Your task to perform on an android device: open app "Clock" Image 0: 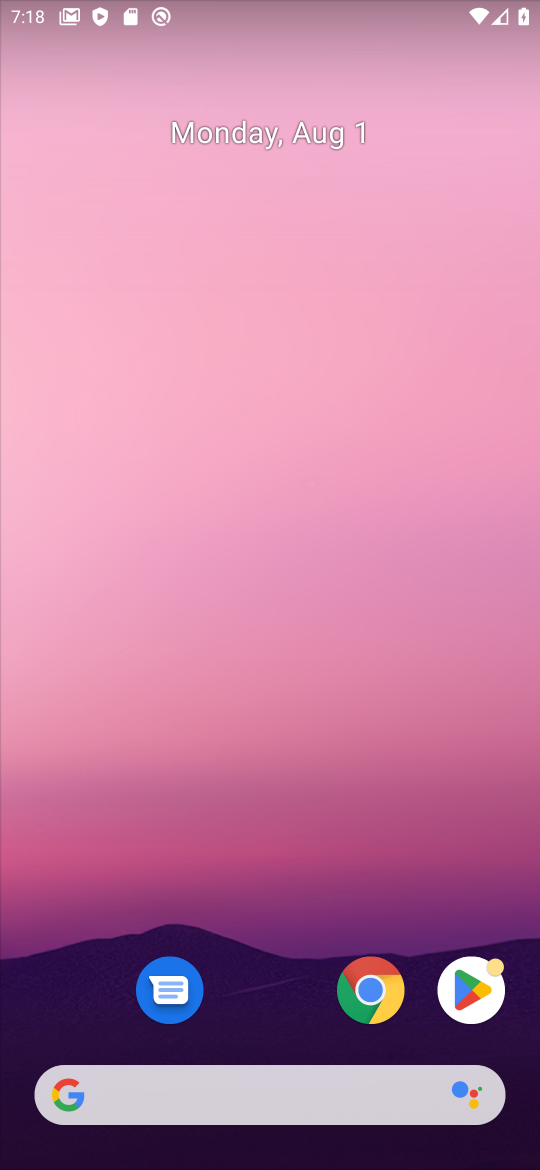
Step 0: press home button
Your task to perform on an android device: open app "Clock" Image 1: 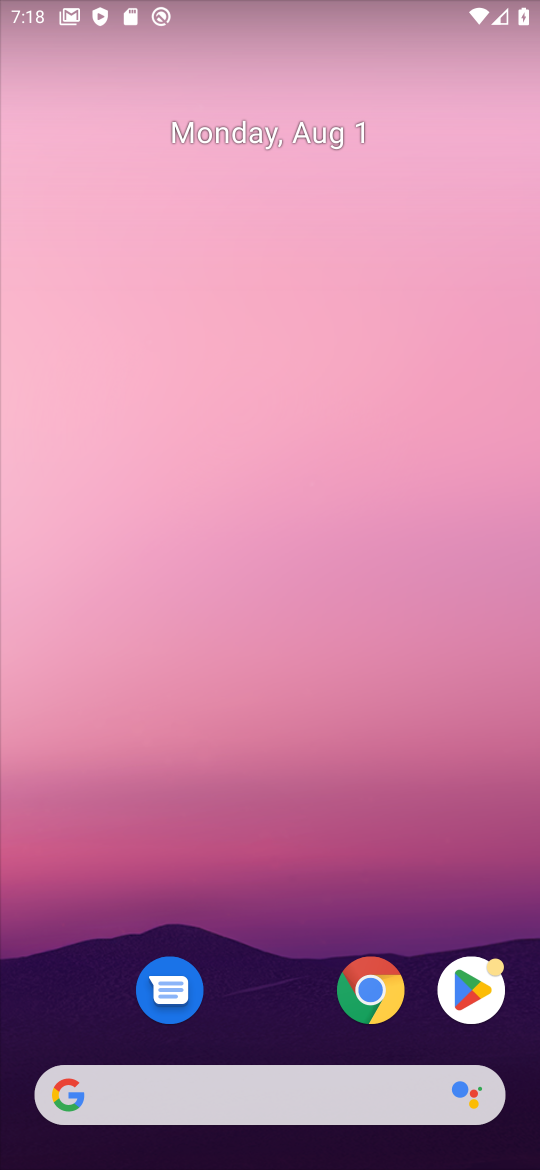
Step 1: click (464, 989)
Your task to perform on an android device: open app "Clock" Image 2: 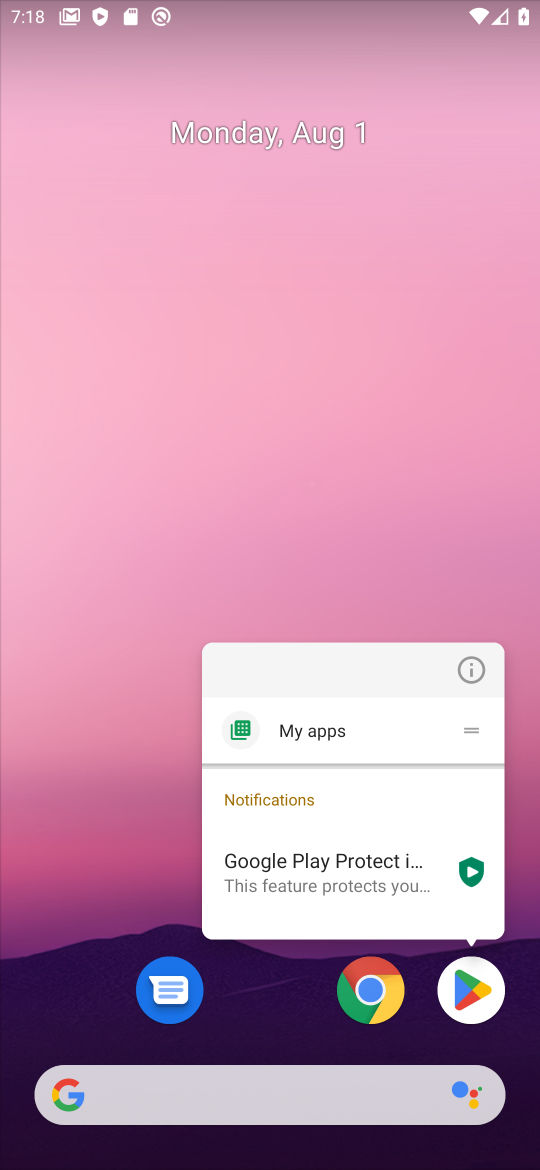
Step 2: click (455, 1013)
Your task to perform on an android device: open app "Clock" Image 3: 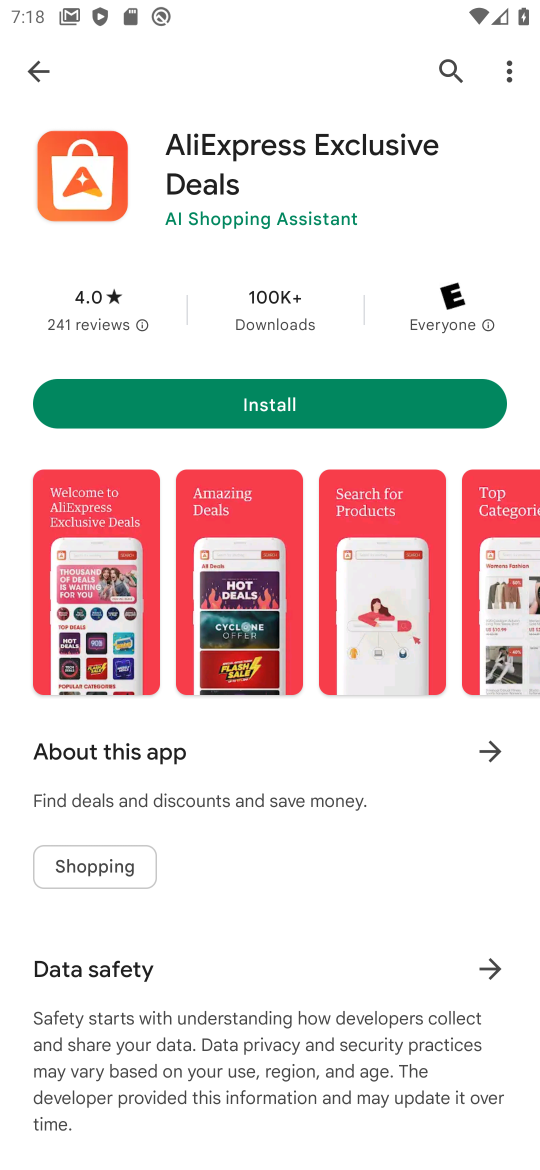
Step 3: click (438, 69)
Your task to perform on an android device: open app "Clock" Image 4: 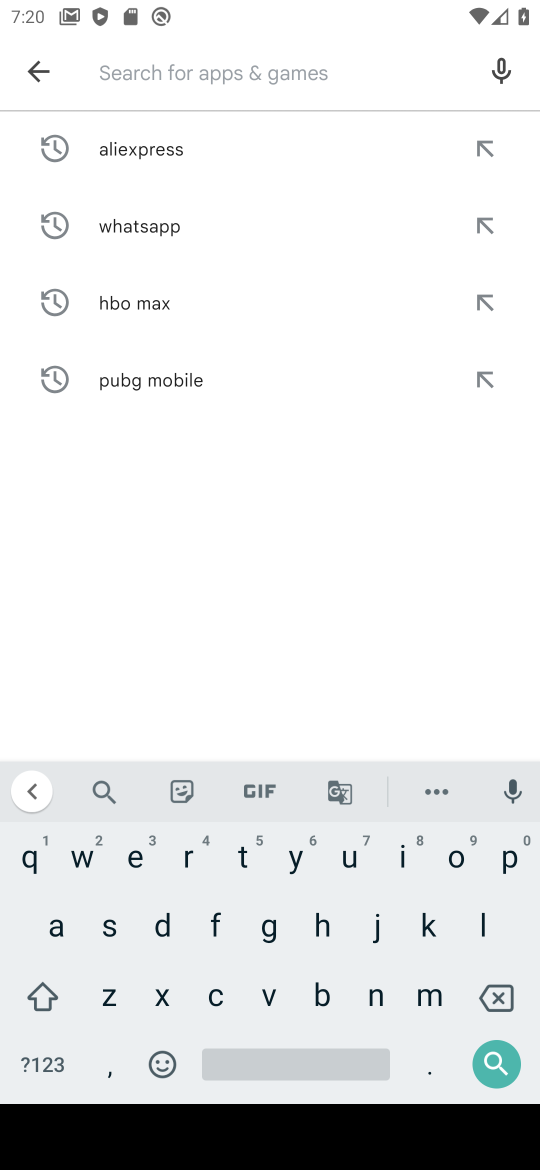
Step 4: click (208, 982)
Your task to perform on an android device: open app "Clock" Image 5: 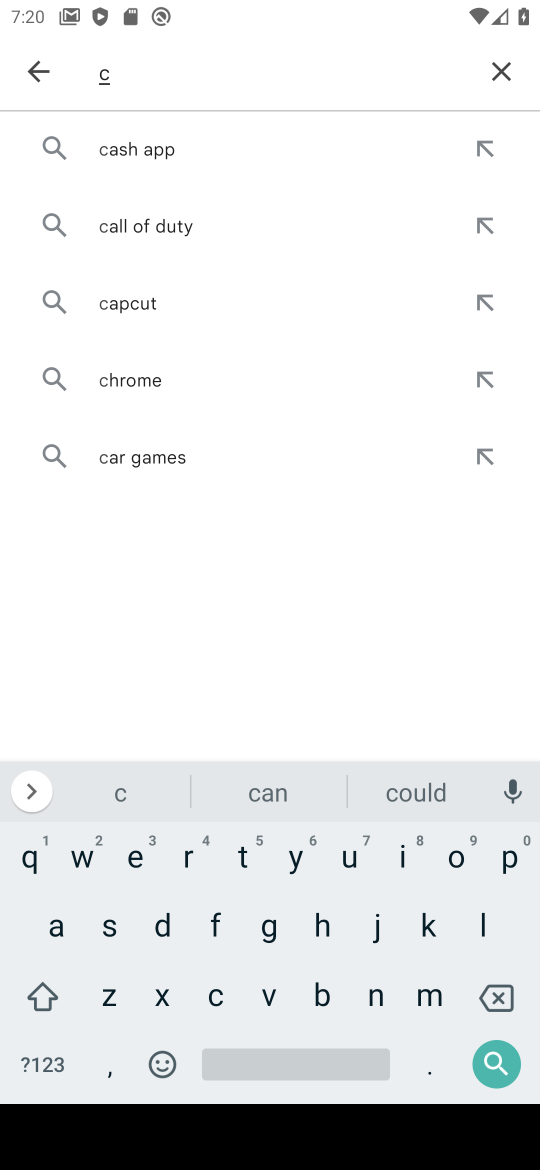
Step 5: click (481, 926)
Your task to perform on an android device: open app "Clock" Image 6: 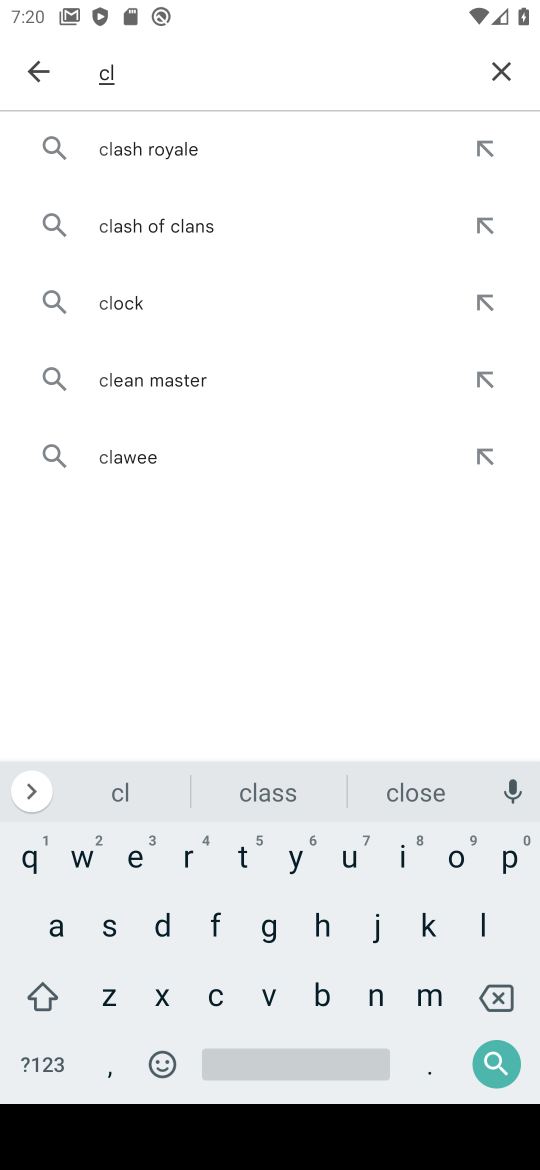
Step 6: click (115, 293)
Your task to perform on an android device: open app "Clock" Image 7: 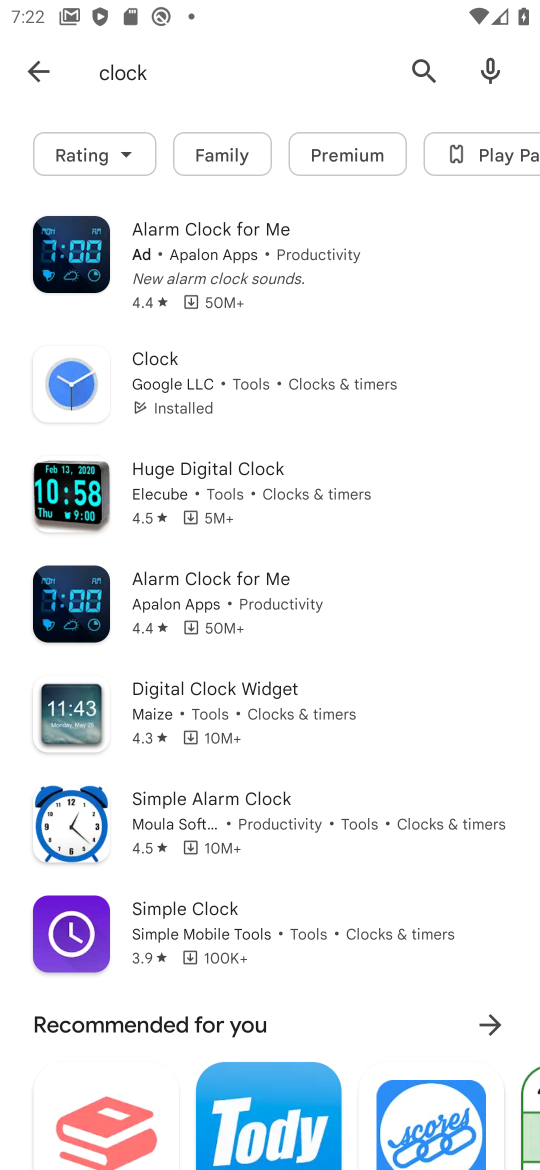
Step 7: task complete